Your task to perform on an android device: Open Youtube and go to "Your channel" Image 0: 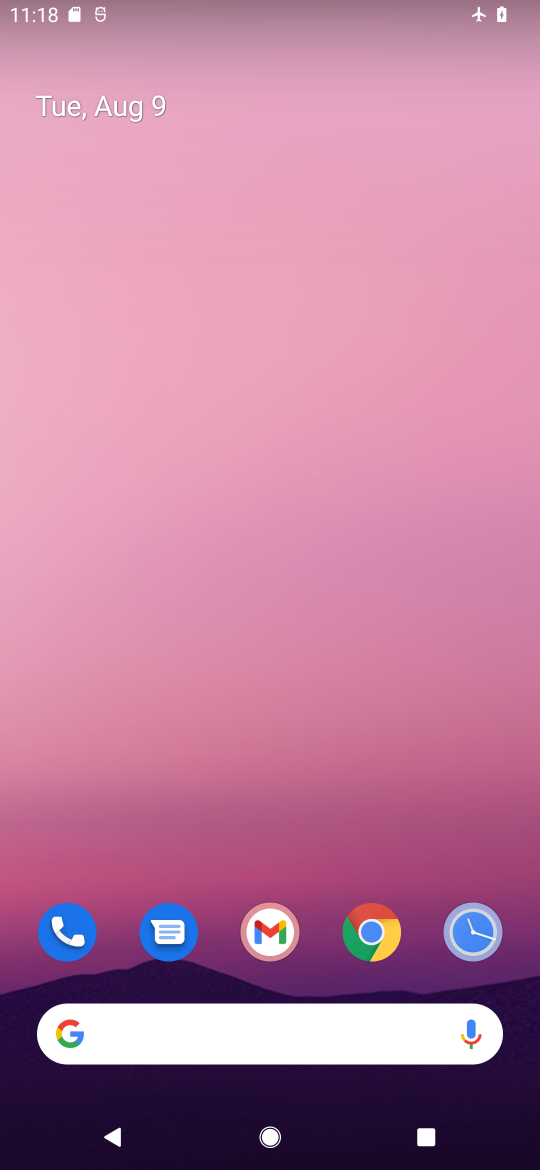
Step 0: drag from (241, 984) to (271, 7)
Your task to perform on an android device: Open Youtube and go to "Your channel" Image 1: 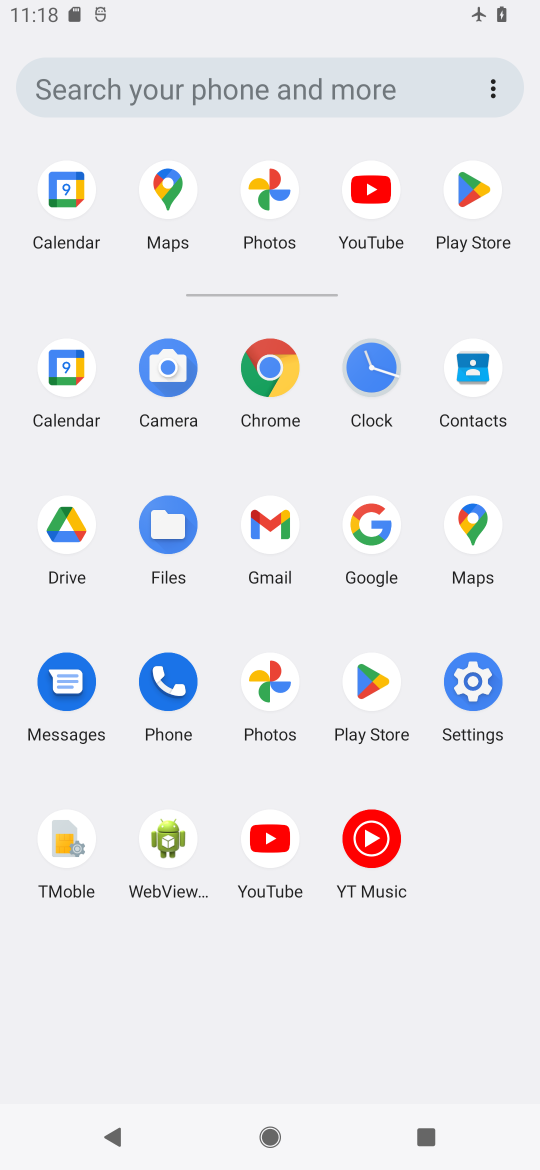
Step 1: click (269, 870)
Your task to perform on an android device: Open Youtube and go to "Your channel" Image 2: 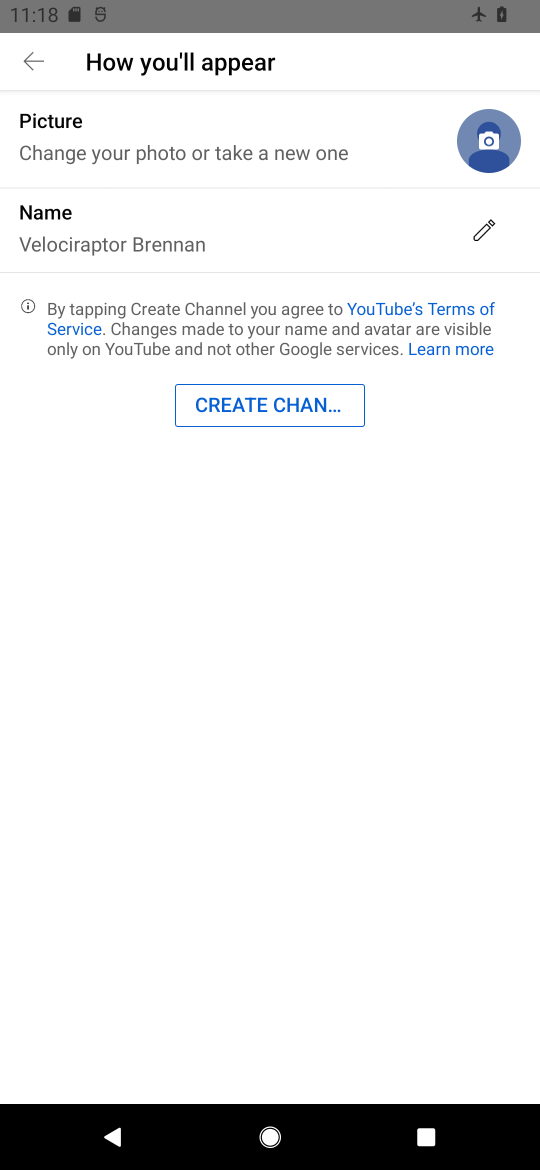
Step 2: task complete